Your task to perform on an android device: Open accessibility settings Image 0: 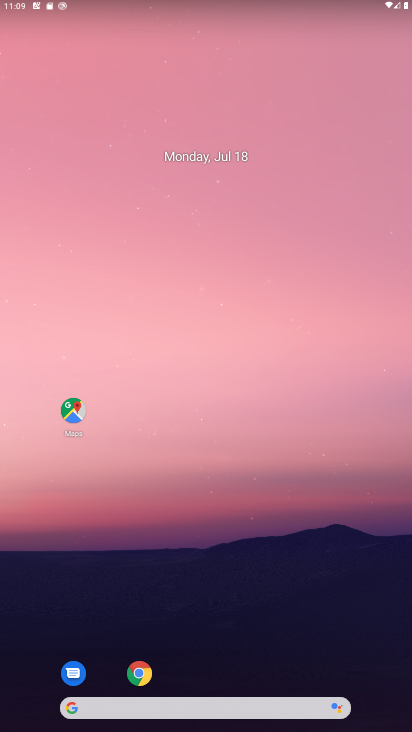
Step 0: drag from (205, 664) to (227, 182)
Your task to perform on an android device: Open accessibility settings Image 1: 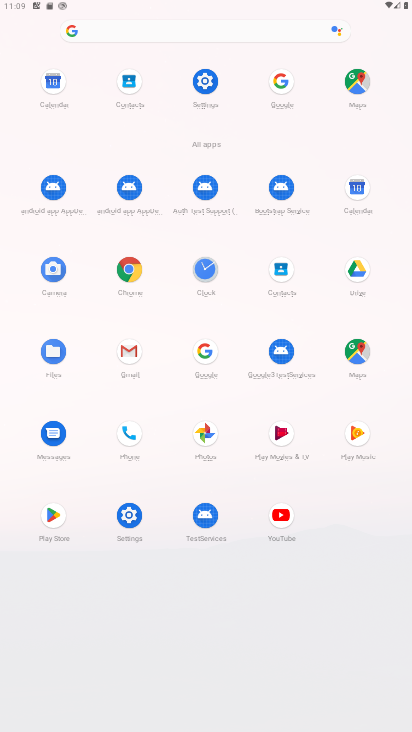
Step 1: click (203, 85)
Your task to perform on an android device: Open accessibility settings Image 2: 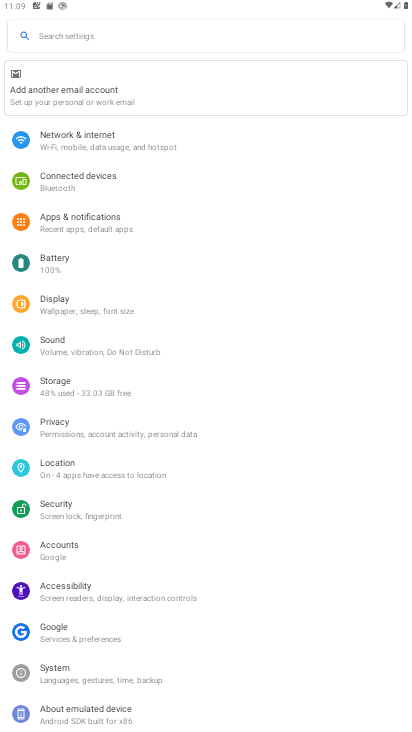
Step 2: click (73, 598)
Your task to perform on an android device: Open accessibility settings Image 3: 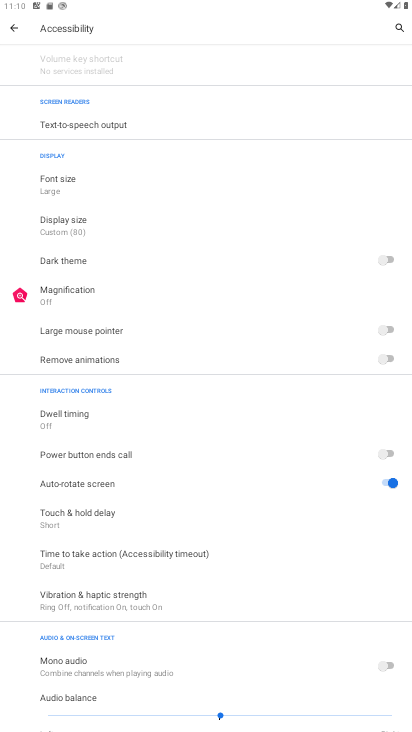
Step 3: task complete